Your task to perform on an android device: Go to Maps Image 0: 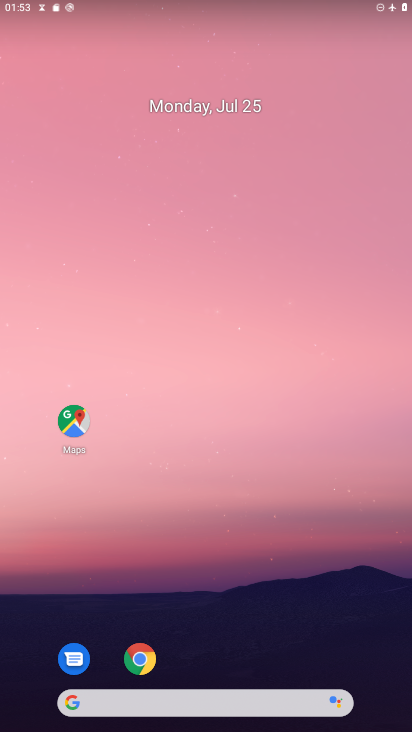
Step 0: click (86, 420)
Your task to perform on an android device: Go to Maps Image 1: 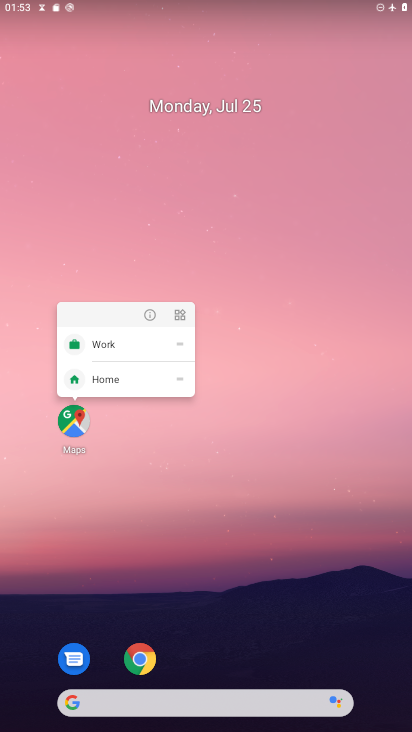
Step 1: click (59, 406)
Your task to perform on an android device: Go to Maps Image 2: 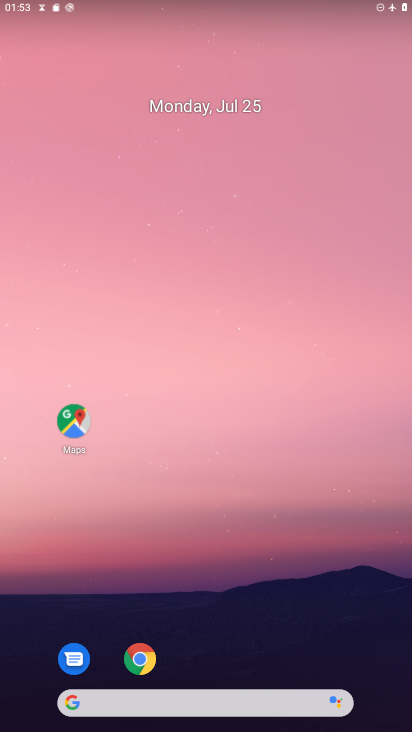
Step 2: click (62, 421)
Your task to perform on an android device: Go to Maps Image 3: 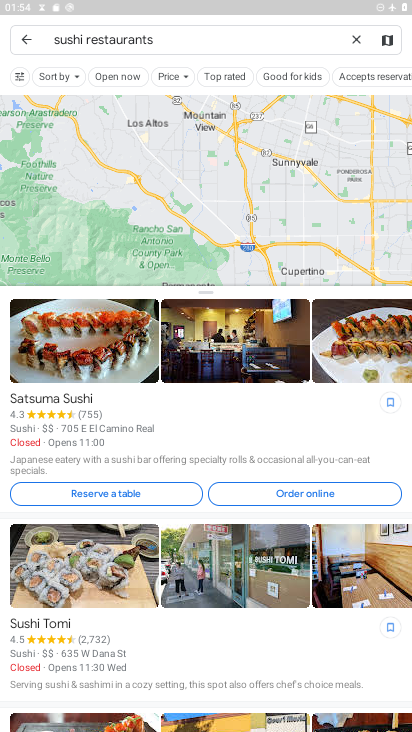
Step 3: task complete